Your task to perform on an android device: Go to Wikipedia Image 0: 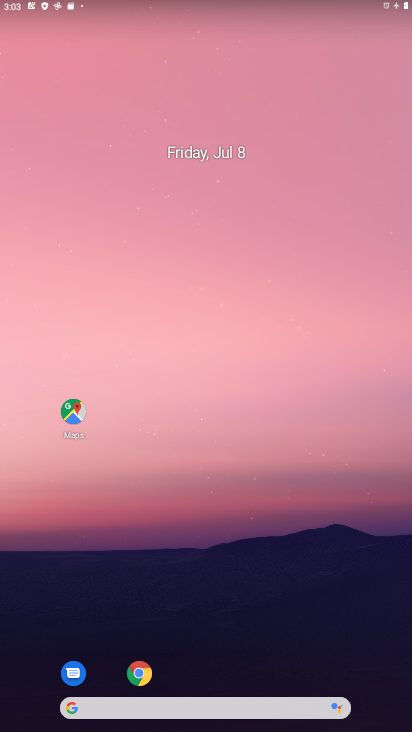
Step 0: click (142, 668)
Your task to perform on an android device: Go to Wikipedia Image 1: 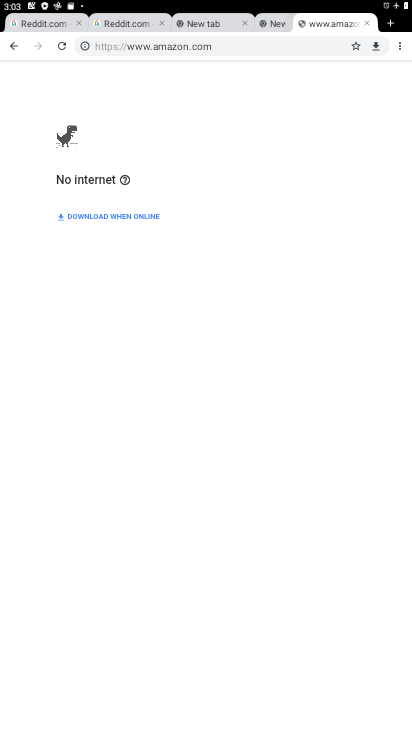
Step 1: task complete